Your task to perform on an android device: Open calendar and show me the first week of next month Image 0: 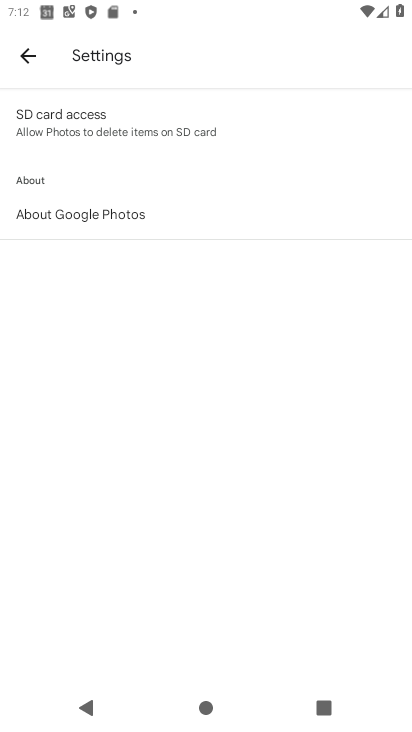
Step 0: press home button
Your task to perform on an android device: Open calendar and show me the first week of next month Image 1: 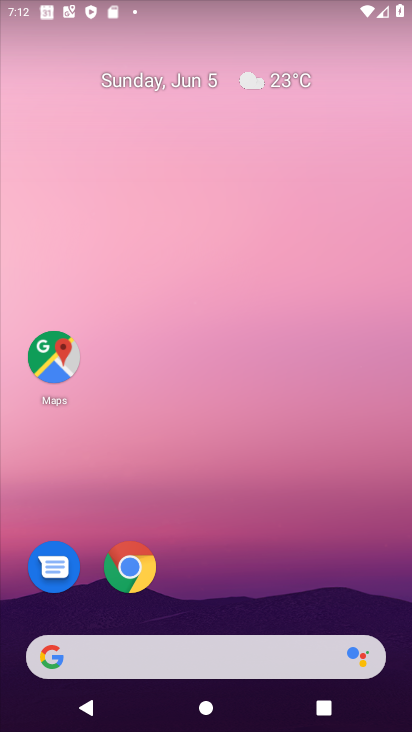
Step 1: drag from (404, 653) to (291, 139)
Your task to perform on an android device: Open calendar and show me the first week of next month Image 2: 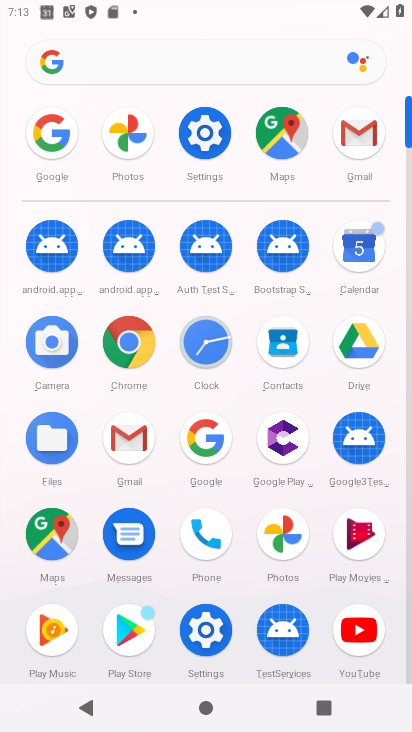
Step 2: click (362, 237)
Your task to perform on an android device: Open calendar and show me the first week of next month Image 3: 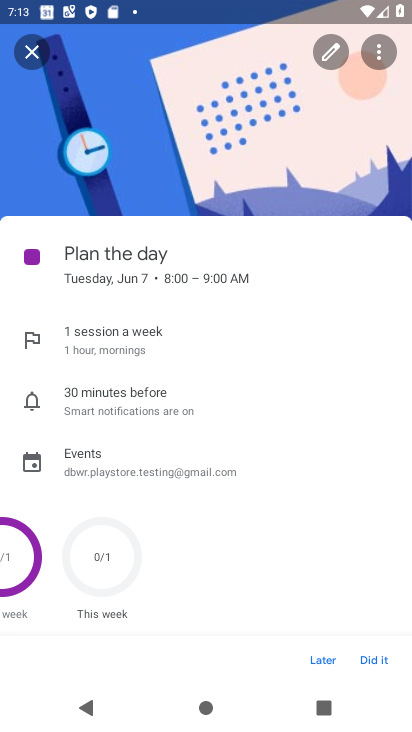
Step 3: press back button
Your task to perform on an android device: Open calendar and show me the first week of next month Image 4: 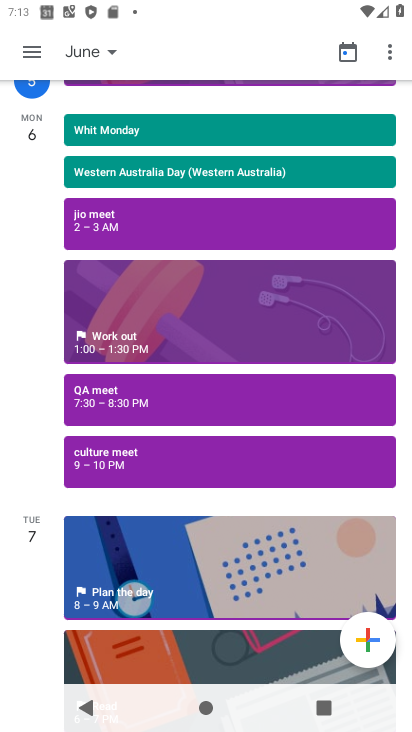
Step 4: click (74, 35)
Your task to perform on an android device: Open calendar and show me the first week of next month Image 5: 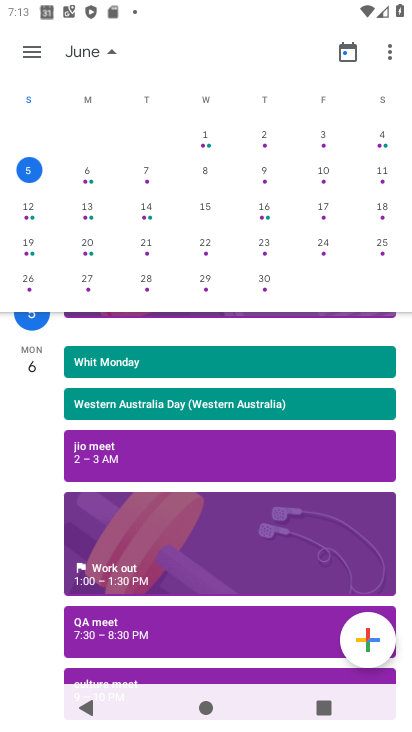
Step 5: drag from (352, 201) to (49, 177)
Your task to perform on an android device: Open calendar and show me the first week of next month Image 6: 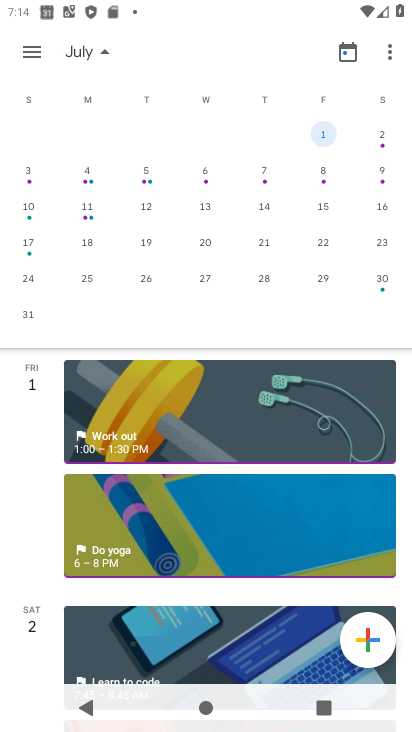
Step 6: click (89, 177)
Your task to perform on an android device: Open calendar and show me the first week of next month Image 7: 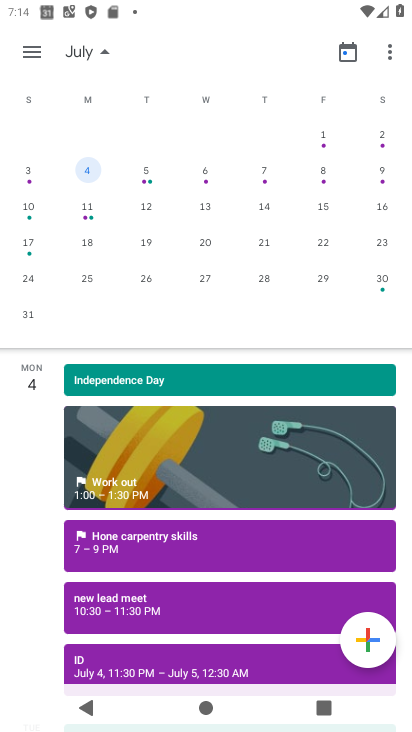
Step 7: task complete